Your task to perform on an android device: change alarm snooze length Image 0: 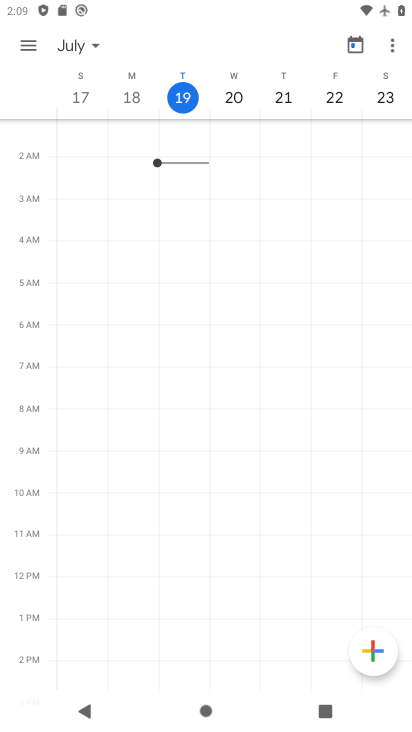
Step 0: press home button
Your task to perform on an android device: change alarm snooze length Image 1: 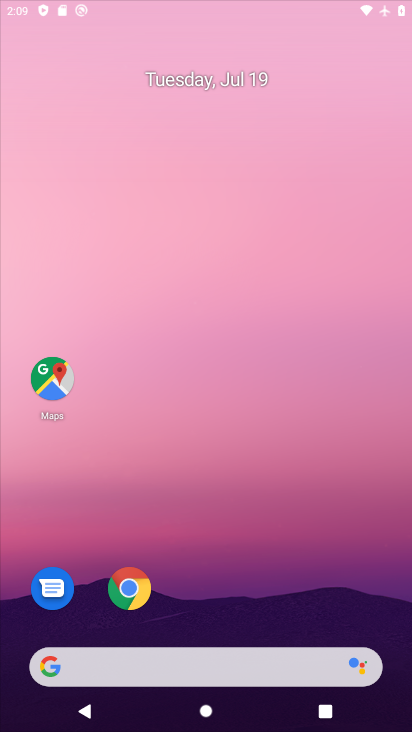
Step 1: drag from (176, 612) to (134, 172)
Your task to perform on an android device: change alarm snooze length Image 2: 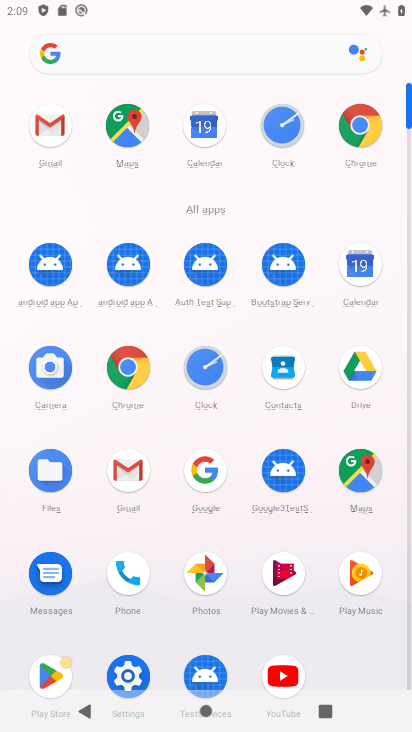
Step 2: click (291, 133)
Your task to perform on an android device: change alarm snooze length Image 3: 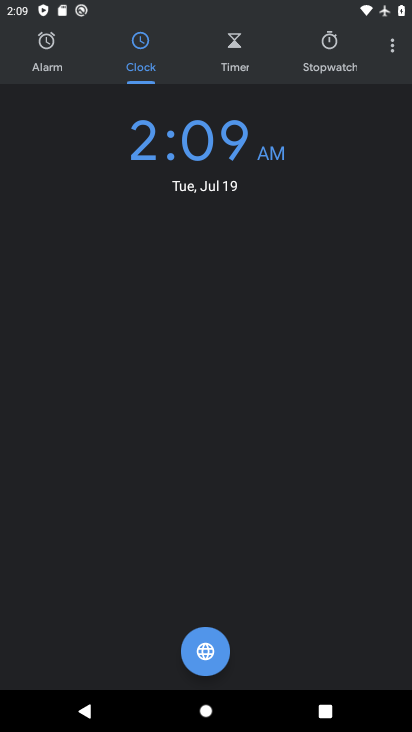
Step 3: click (388, 45)
Your task to perform on an android device: change alarm snooze length Image 4: 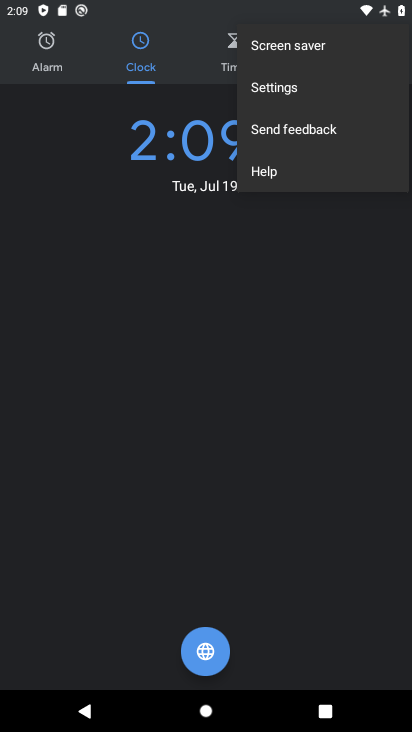
Step 4: click (301, 89)
Your task to perform on an android device: change alarm snooze length Image 5: 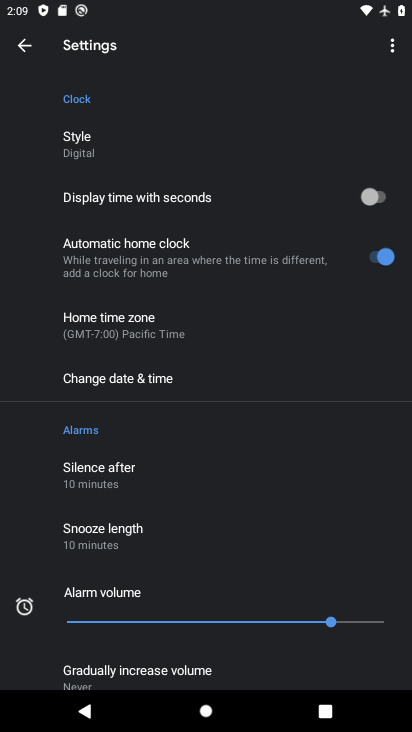
Step 5: click (91, 537)
Your task to perform on an android device: change alarm snooze length Image 6: 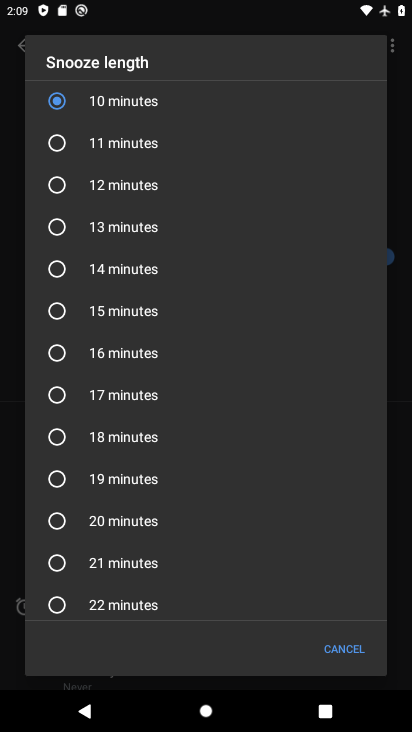
Step 6: click (66, 320)
Your task to perform on an android device: change alarm snooze length Image 7: 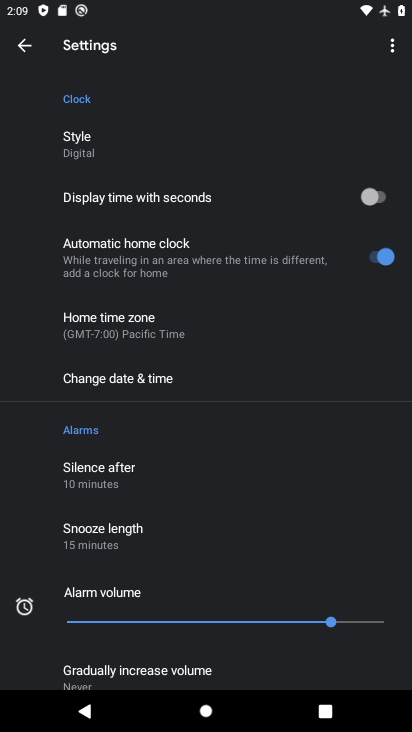
Step 7: task complete